Your task to perform on an android device: Open internet settings Image 0: 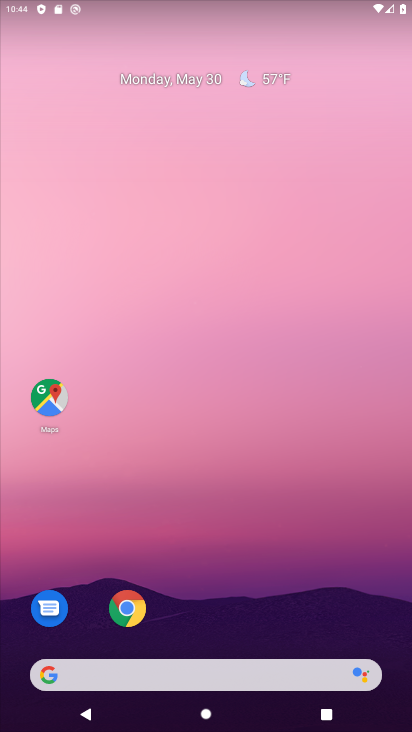
Step 0: drag from (257, 581) to (217, 3)
Your task to perform on an android device: Open internet settings Image 1: 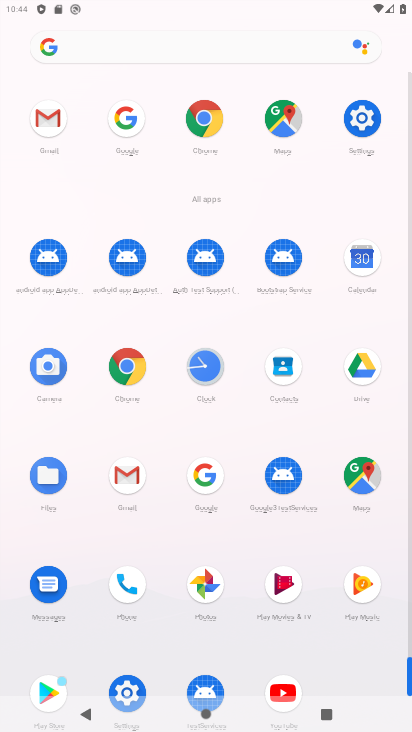
Step 1: drag from (3, 582) to (15, 236)
Your task to perform on an android device: Open internet settings Image 2: 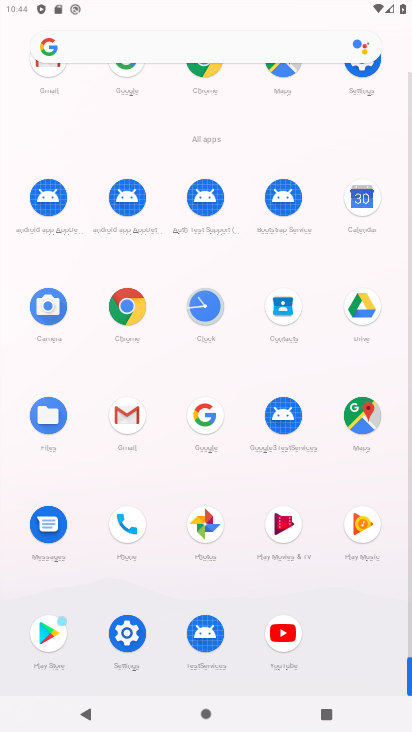
Step 2: click (125, 631)
Your task to perform on an android device: Open internet settings Image 3: 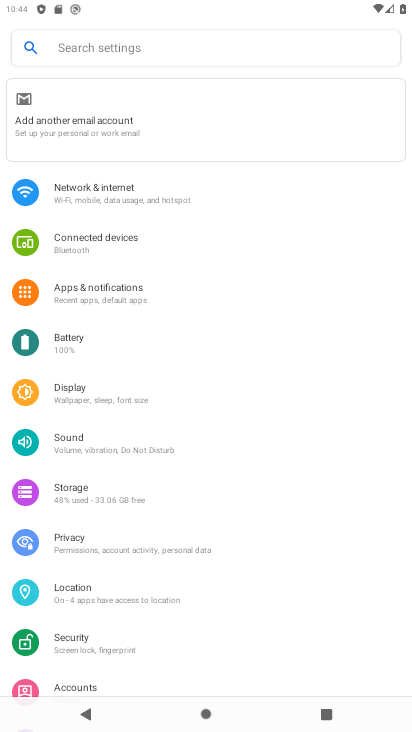
Step 3: click (121, 185)
Your task to perform on an android device: Open internet settings Image 4: 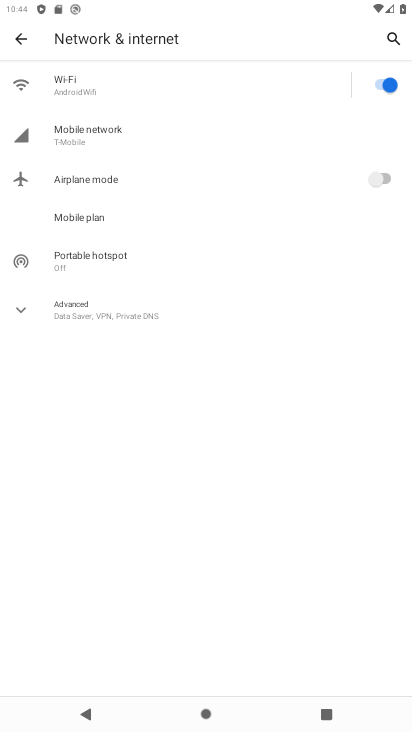
Step 4: click (34, 312)
Your task to perform on an android device: Open internet settings Image 5: 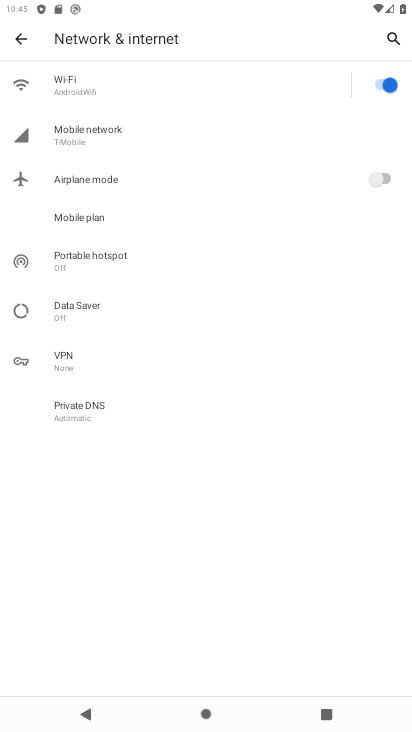
Step 5: task complete